Your task to perform on an android device: turn off notifications settings in the gmail app Image 0: 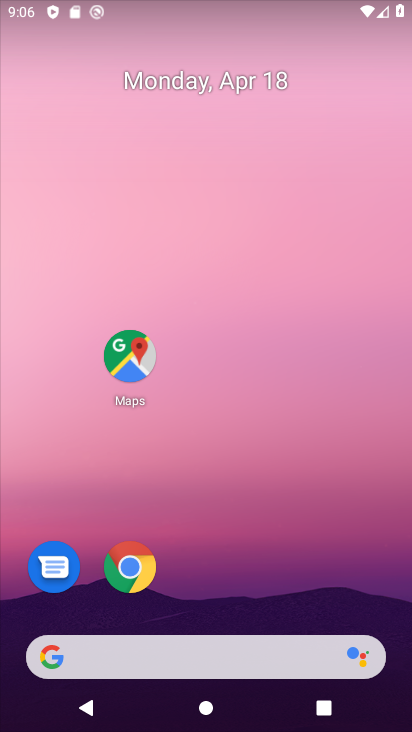
Step 0: drag from (243, 663) to (343, 325)
Your task to perform on an android device: turn off notifications settings in the gmail app Image 1: 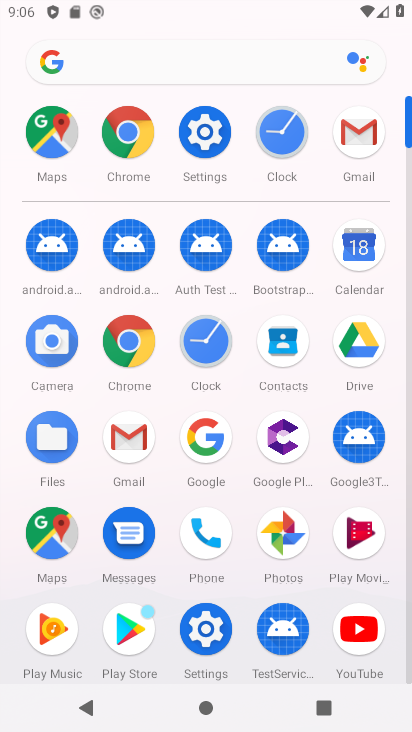
Step 1: click (137, 453)
Your task to perform on an android device: turn off notifications settings in the gmail app Image 2: 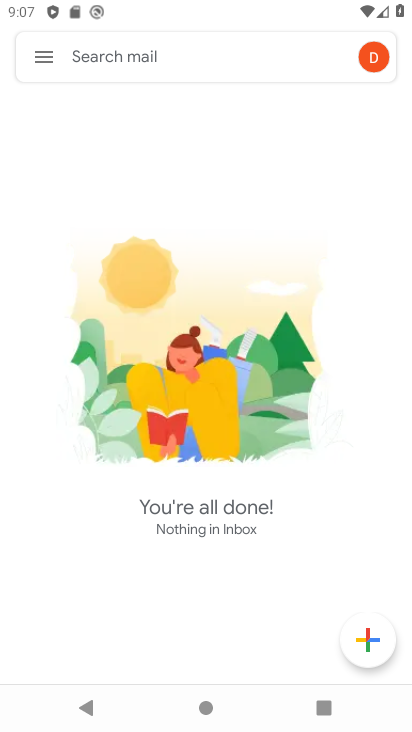
Step 2: click (43, 78)
Your task to perform on an android device: turn off notifications settings in the gmail app Image 3: 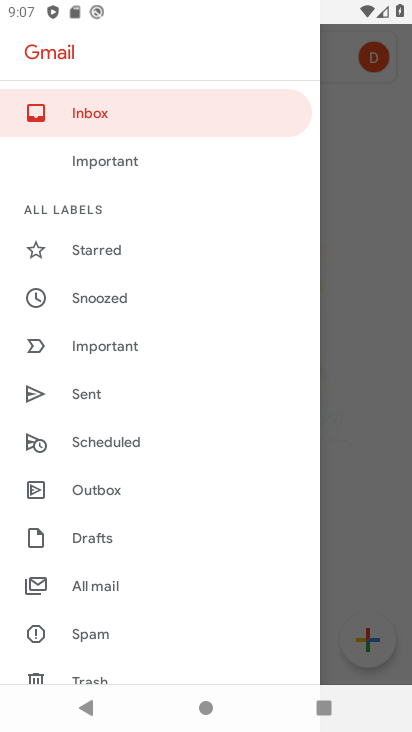
Step 3: drag from (102, 540) to (213, 417)
Your task to perform on an android device: turn off notifications settings in the gmail app Image 4: 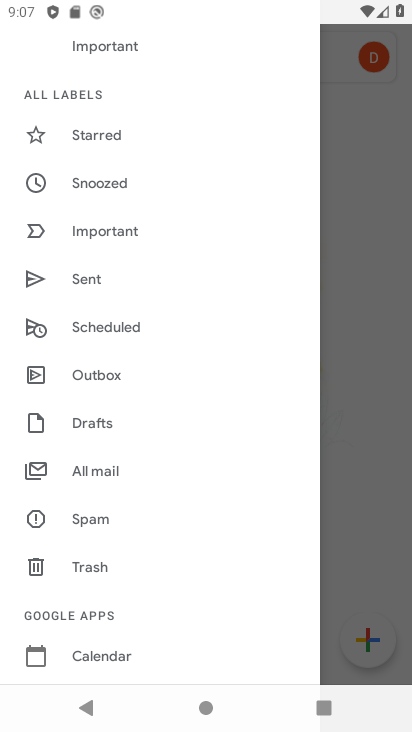
Step 4: drag from (112, 598) to (187, 494)
Your task to perform on an android device: turn off notifications settings in the gmail app Image 5: 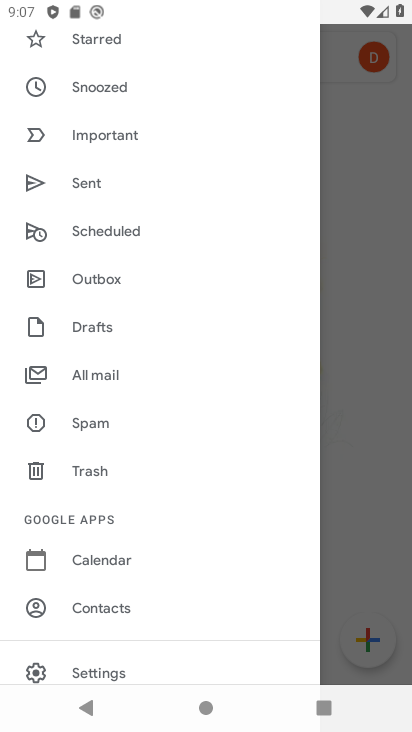
Step 5: click (74, 665)
Your task to perform on an android device: turn off notifications settings in the gmail app Image 6: 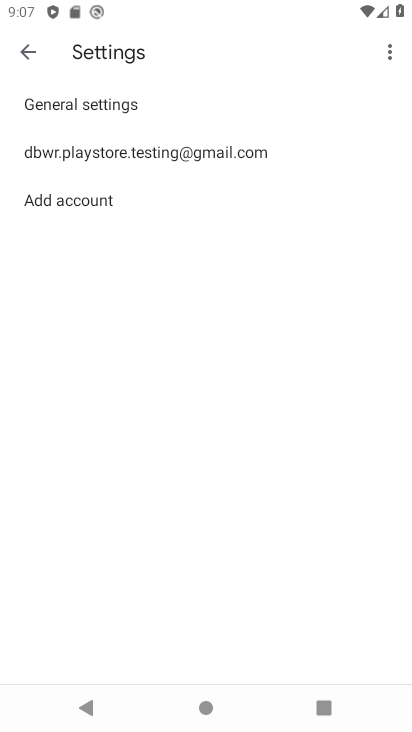
Step 6: click (213, 158)
Your task to perform on an android device: turn off notifications settings in the gmail app Image 7: 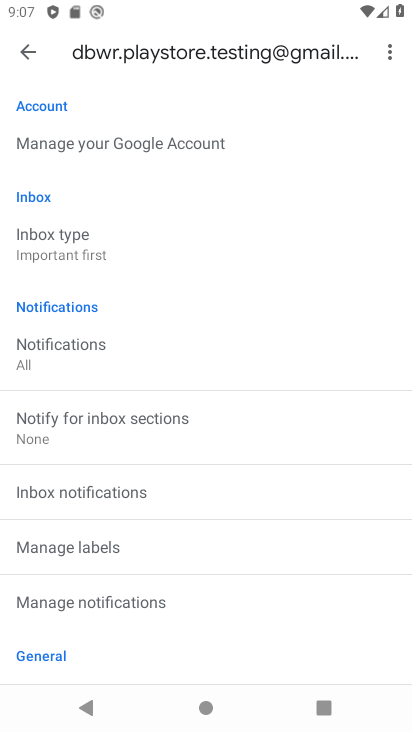
Step 7: click (74, 360)
Your task to perform on an android device: turn off notifications settings in the gmail app Image 8: 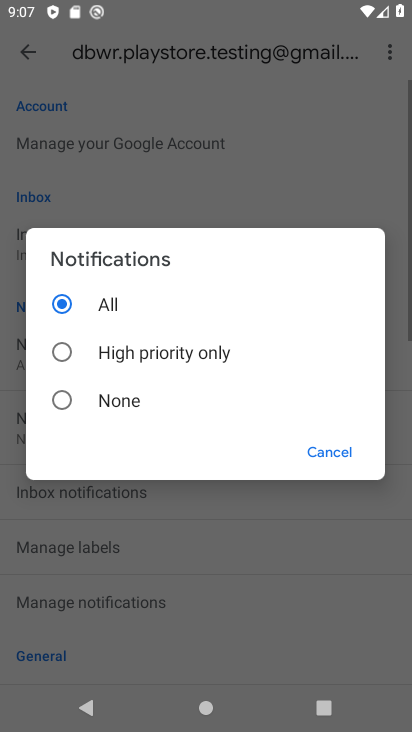
Step 8: click (119, 392)
Your task to perform on an android device: turn off notifications settings in the gmail app Image 9: 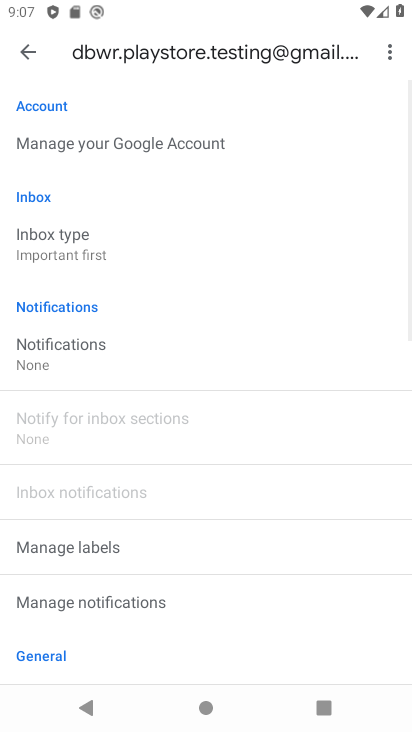
Step 9: task complete